Your task to perform on an android device: set an alarm Image 0: 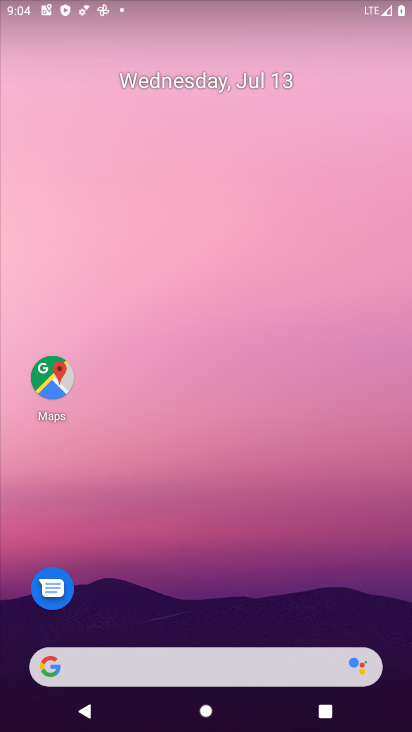
Step 0: drag from (135, 674) to (136, 36)
Your task to perform on an android device: set an alarm Image 1: 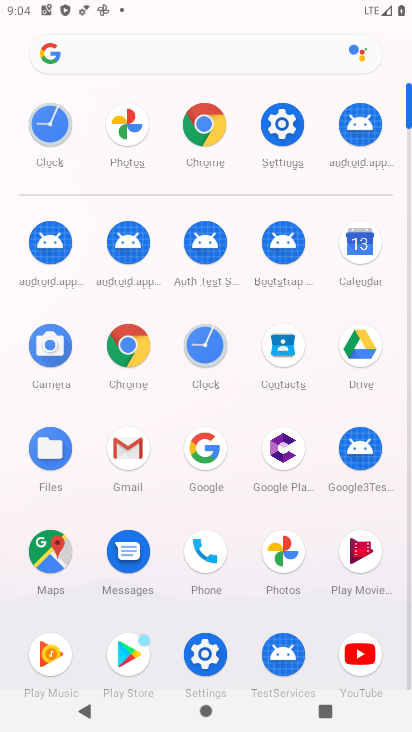
Step 1: click (31, 125)
Your task to perform on an android device: set an alarm Image 2: 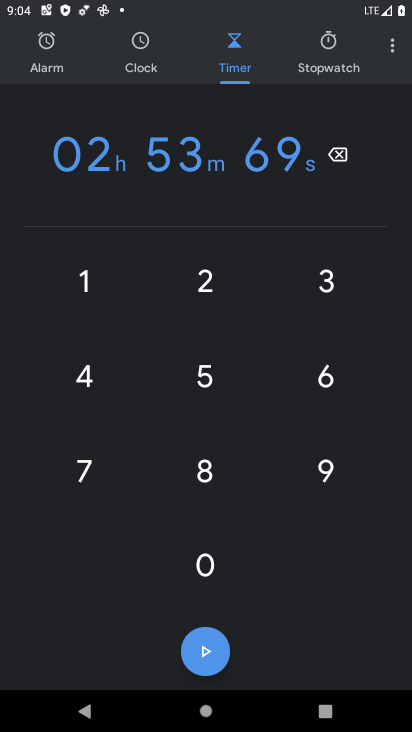
Step 2: click (61, 57)
Your task to perform on an android device: set an alarm Image 3: 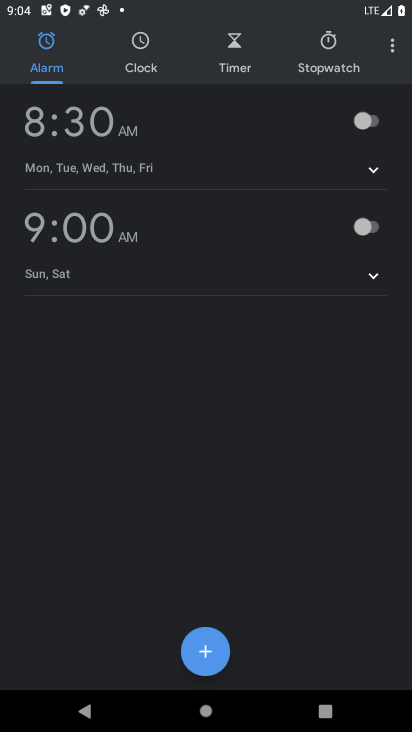
Step 3: click (206, 642)
Your task to perform on an android device: set an alarm Image 4: 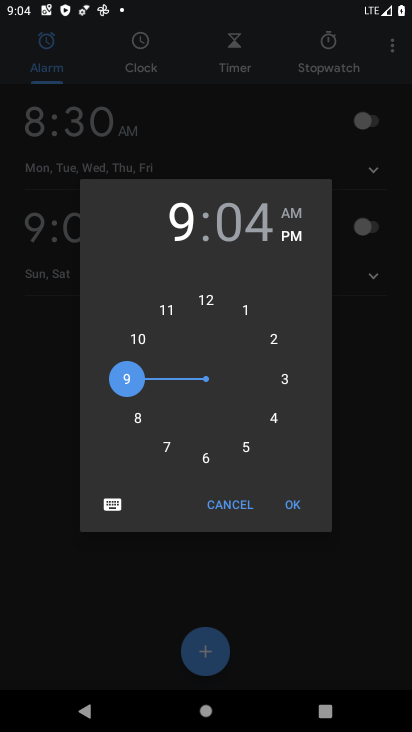
Step 4: click (293, 506)
Your task to perform on an android device: set an alarm Image 5: 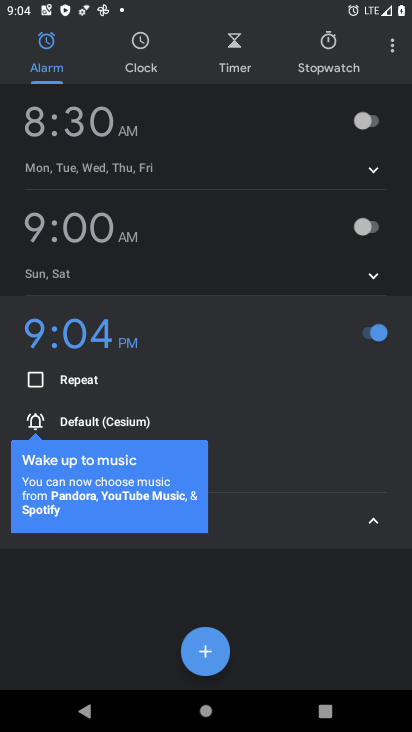
Step 5: task complete